Your task to perform on an android device: turn notification dots on Image 0: 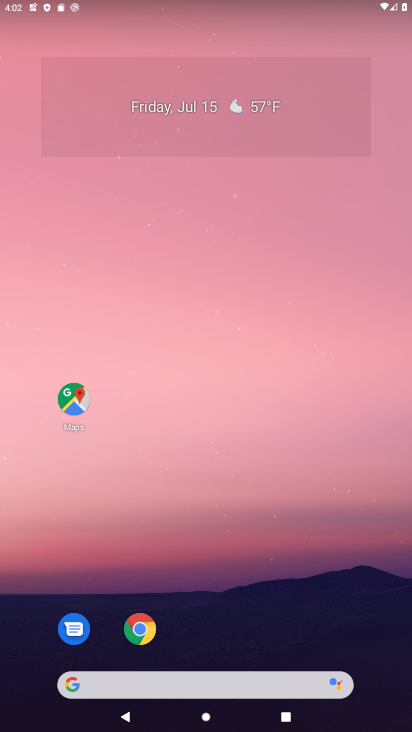
Step 0: press home button
Your task to perform on an android device: turn notification dots on Image 1: 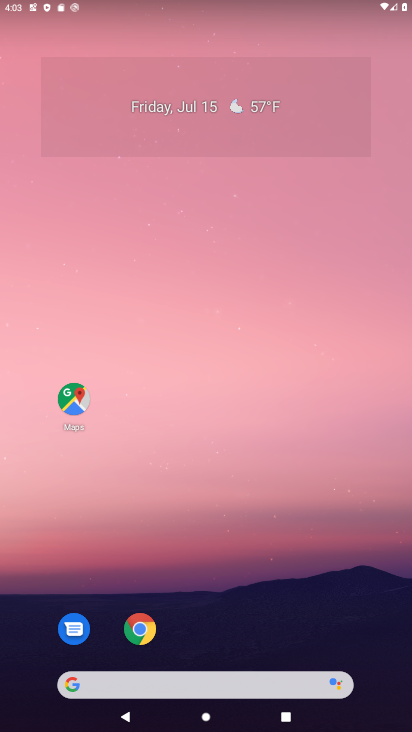
Step 1: drag from (247, 582) to (258, 26)
Your task to perform on an android device: turn notification dots on Image 2: 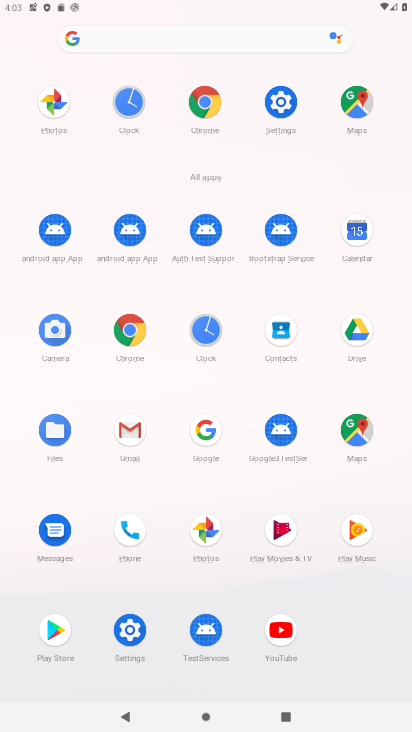
Step 2: click (281, 94)
Your task to perform on an android device: turn notification dots on Image 3: 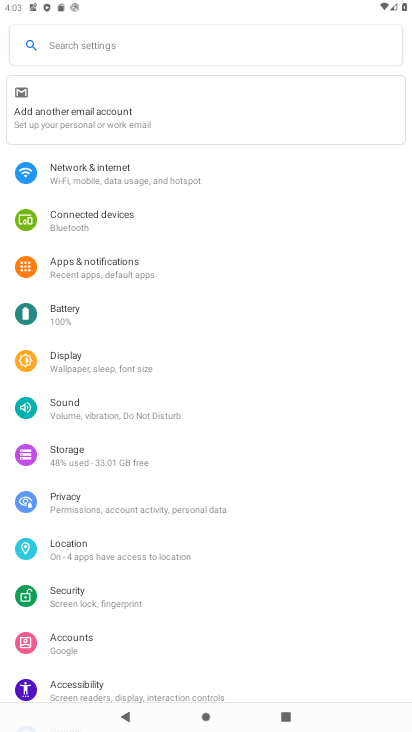
Step 3: click (90, 268)
Your task to perform on an android device: turn notification dots on Image 4: 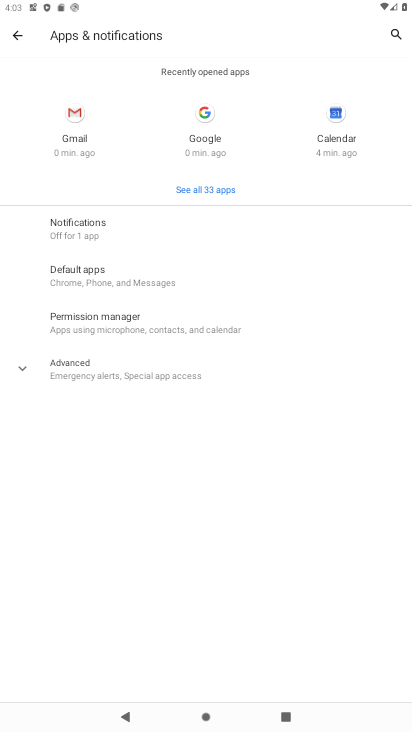
Step 4: click (74, 227)
Your task to perform on an android device: turn notification dots on Image 5: 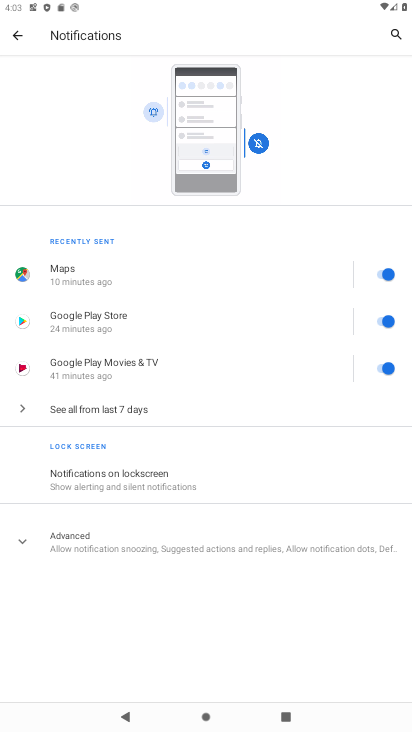
Step 5: click (29, 540)
Your task to perform on an android device: turn notification dots on Image 6: 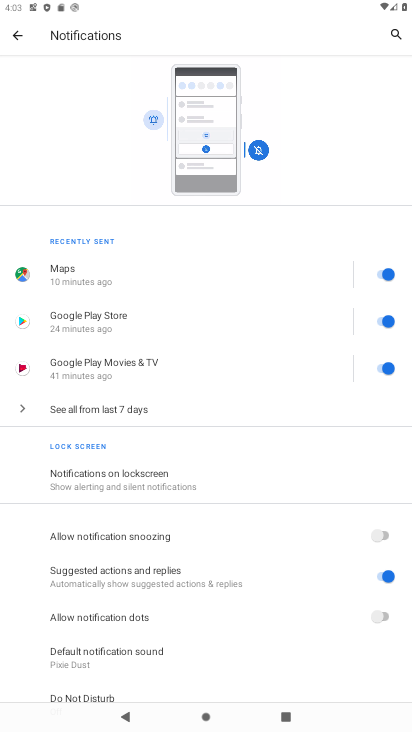
Step 6: click (383, 615)
Your task to perform on an android device: turn notification dots on Image 7: 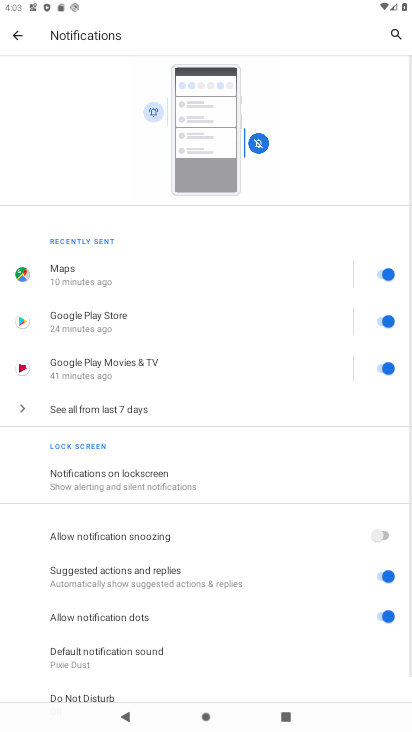
Step 7: task complete